Your task to perform on an android device: remove spam from my inbox in the gmail app Image 0: 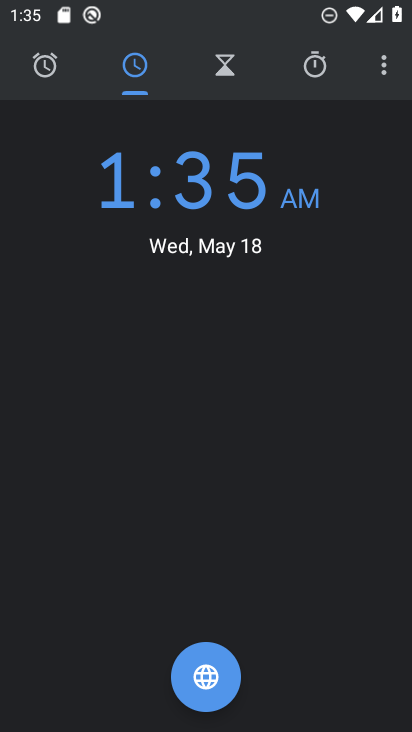
Step 0: press home button
Your task to perform on an android device: remove spam from my inbox in the gmail app Image 1: 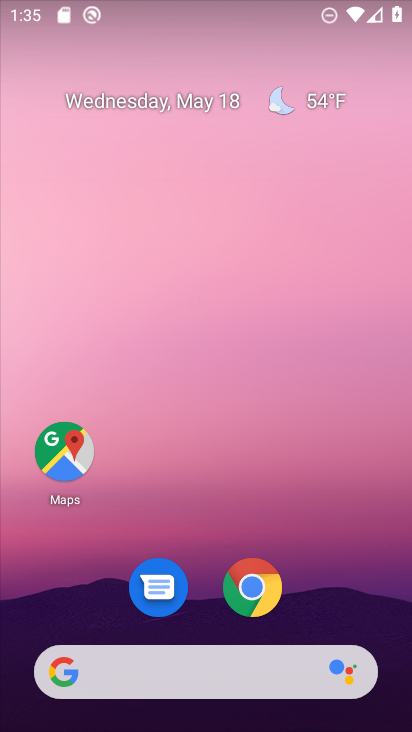
Step 1: drag from (96, 567) to (235, 200)
Your task to perform on an android device: remove spam from my inbox in the gmail app Image 2: 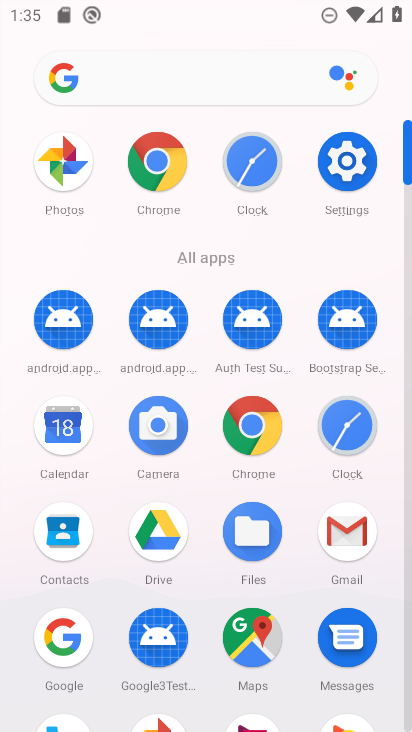
Step 2: drag from (132, 583) to (180, 448)
Your task to perform on an android device: remove spam from my inbox in the gmail app Image 3: 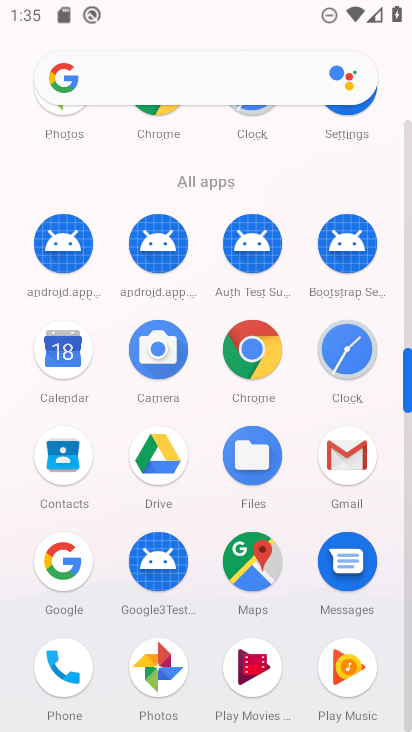
Step 3: click (335, 470)
Your task to perform on an android device: remove spam from my inbox in the gmail app Image 4: 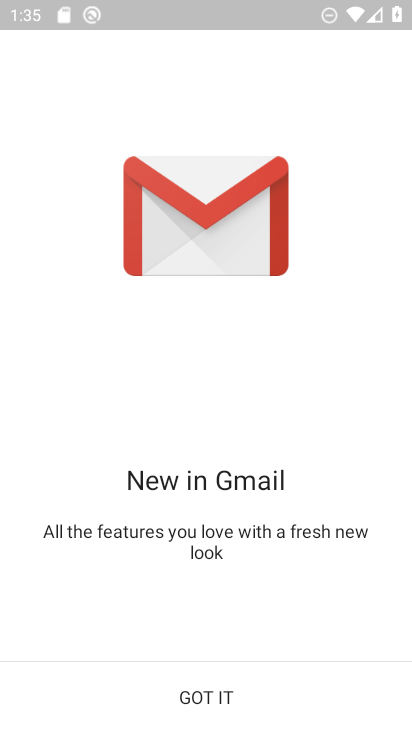
Step 4: click (249, 699)
Your task to perform on an android device: remove spam from my inbox in the gmail app Image 5: 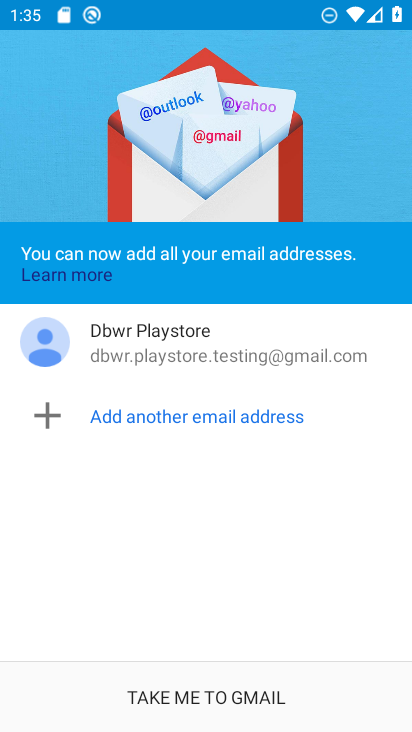
Step 5: click (244, 697)
Your task to perform on an android device: remove spam from my inbox in the gmail app Image 6: 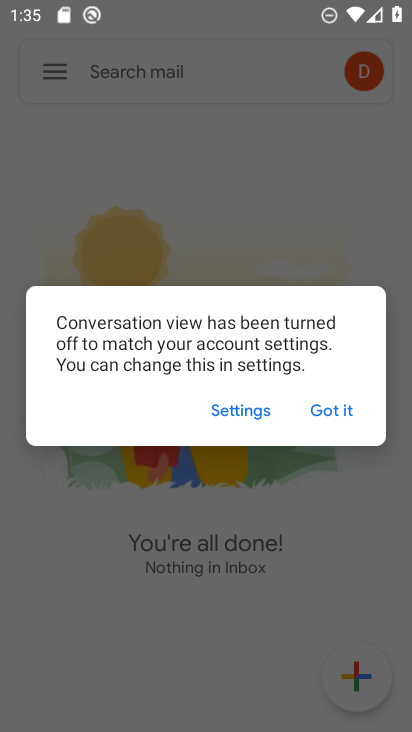
Step 6: click (342, 397)
Your task to perform on an android device: remove spam from my inbox in the gmail app Image 7: 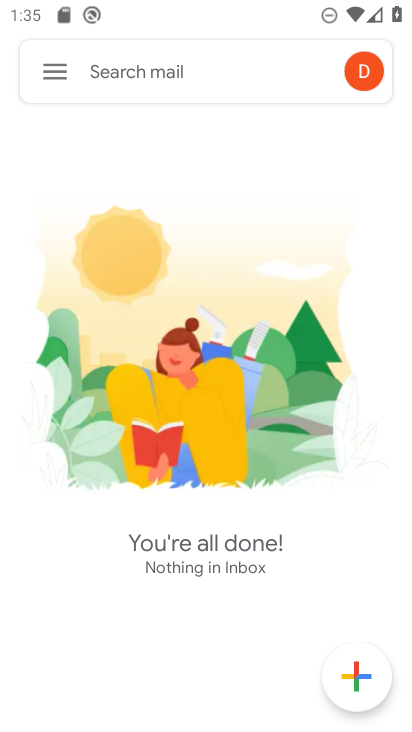
Step 7: click (47, 64)
Your task to perform on an android device: remove spam from my inbox in the gmail app Image 8: 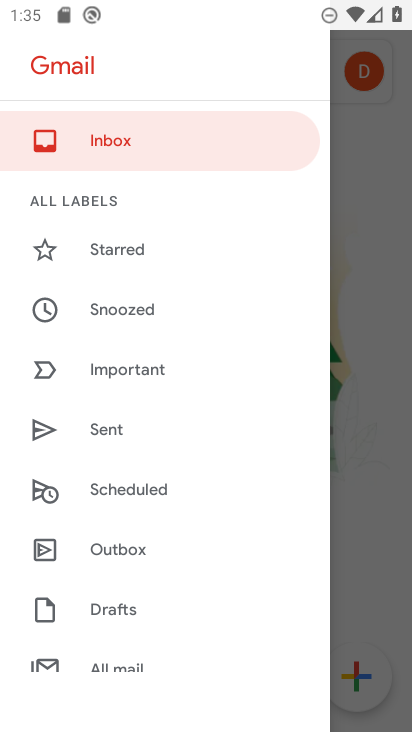
Step 8: drag from (161, 641) to (241, 328)
Your task to perform on an android device: remove spam from my inbox in the gmail app Image 9: 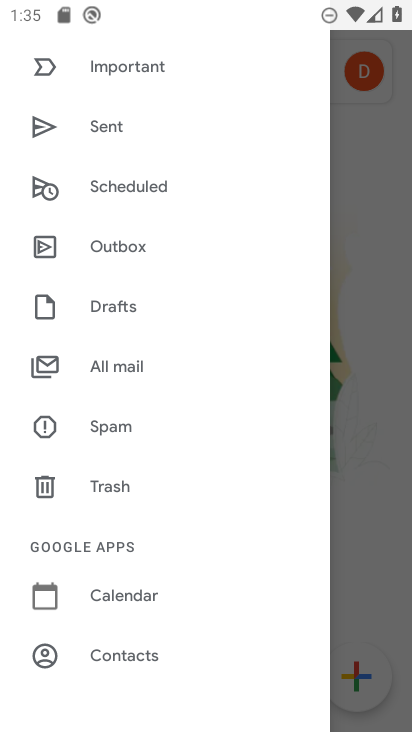
Step 9: click (146, 418)
Your task to perform on an android device: remove spam from my inbox in the gmail app Image 10: 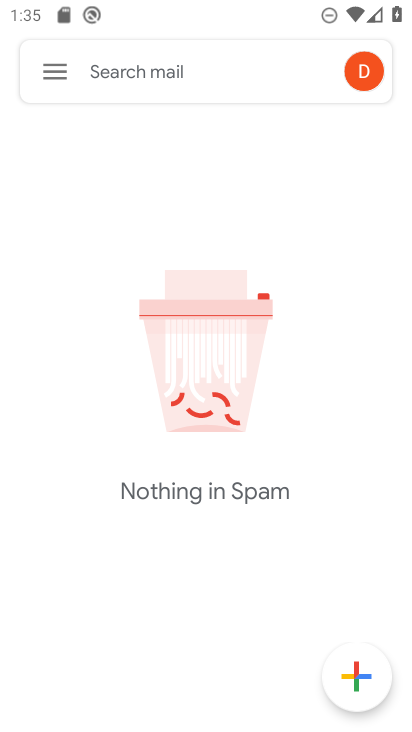
Step 10: task complete